Your task to perform on an android device: turn off javascript in the chrome app Image 0: 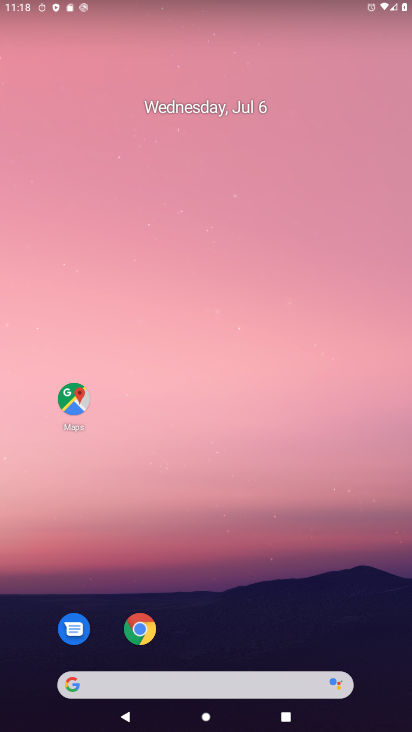
Step 0: click (141, 629)
Your task to perform on an android device: turn off javascript in the chrome app Image 1: 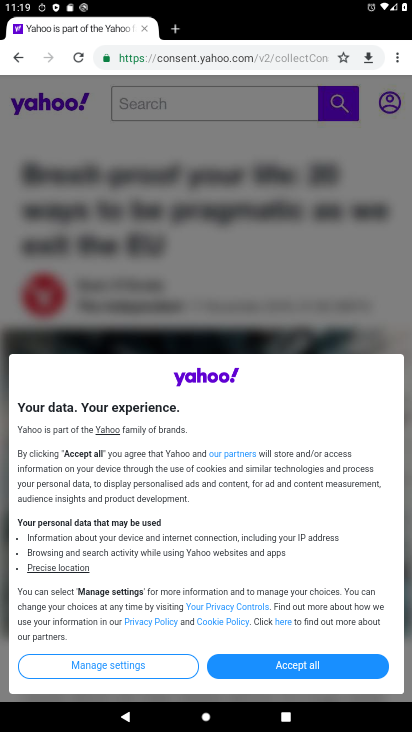
Step 1: click (395, 61)
Your task to perform on an android device: turn off javascript in the chrome app Image 2: 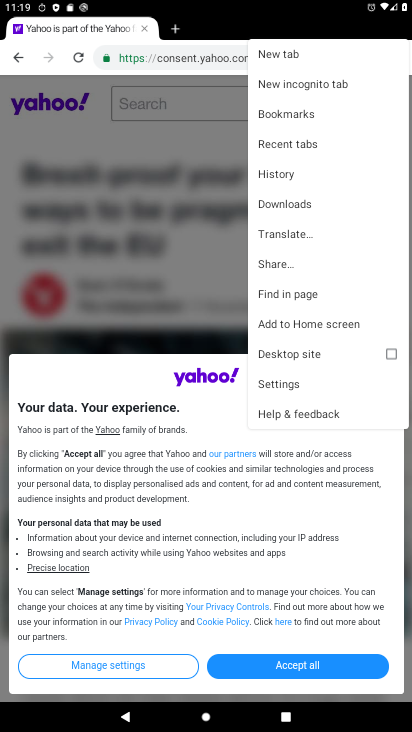
Step 2: click (285, 384)
Your task to perform on an android device: turn off javascript in the chrome app Image 3: 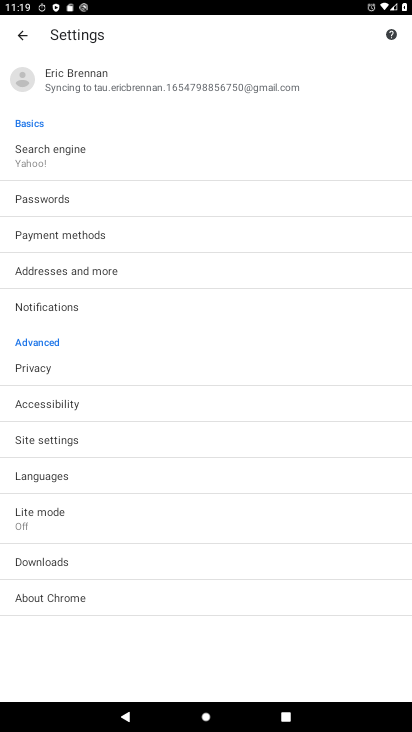
Step 3: click (75, 446)
Your task to perform on an android device: turn off javascript in the chrome app Image 4: 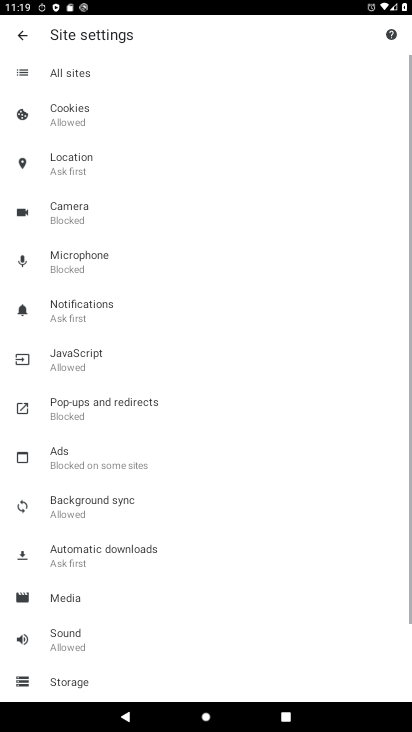
Step 4: click (86, 359)
Your task to perform on an android device: turn off javascript in the chrome app Image 5: 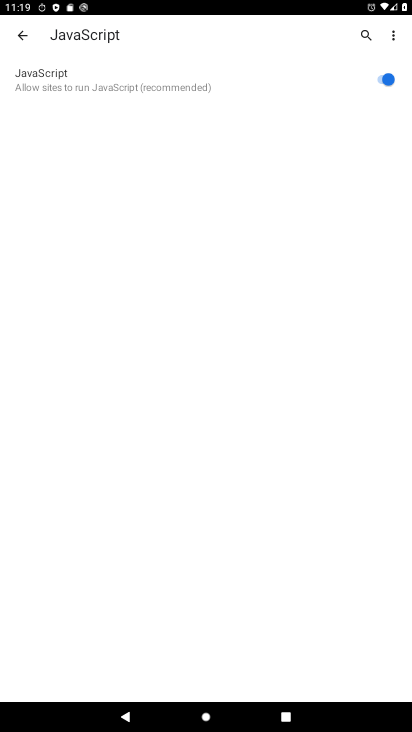
Step 5: click (378, 85)
Your task to perform on an android device: turn off javascript in the chrome app Image 6: 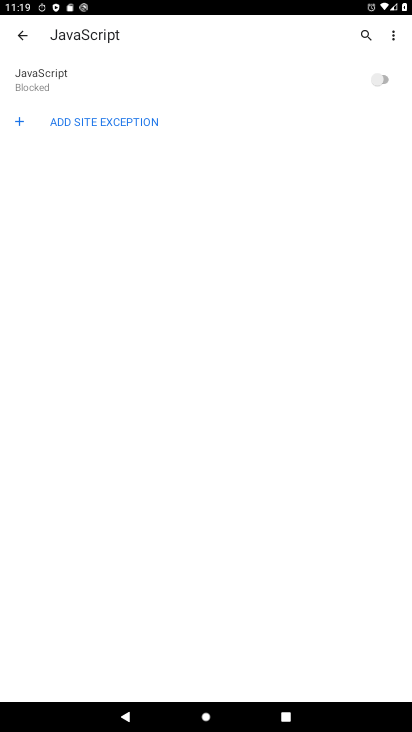
Step 6: task complete